Your task to perform on an android device: Open internet settings Image 0: 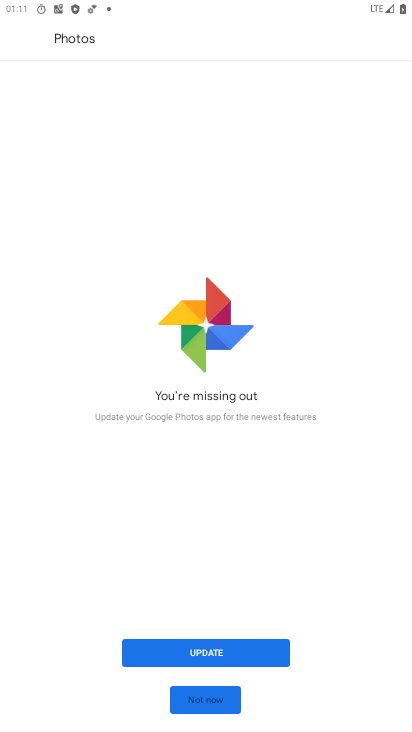
Step 0: press home button
Your task to perform on an android device: Open internet settings Image 1: 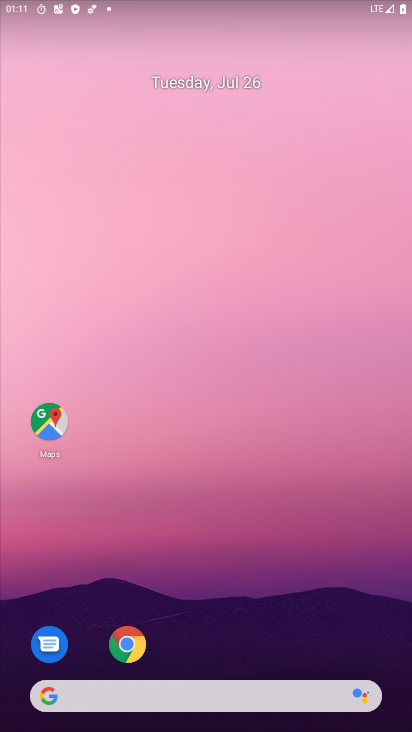
Step 1: drag from (208, 664) to (208, 62)
Your task to perform on an android device: Open internet settings Image 2: 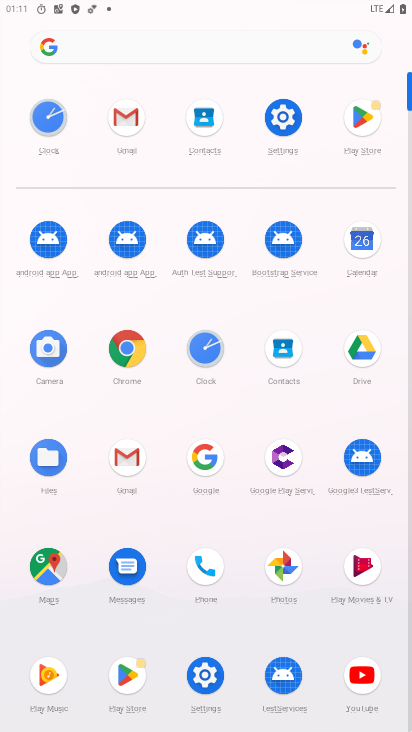
Step 2: click (283, 126)
Your task to perform on an android device: Open internet settings Image 3: 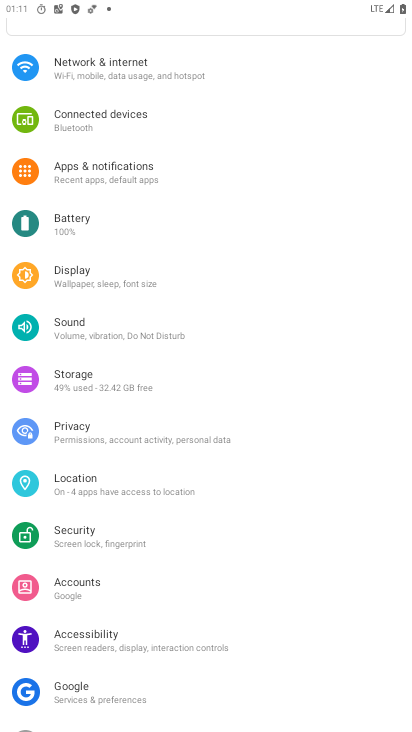
Step 3: click (87, 85)
Your task to perform on an android device: Open internet settings Image 4: 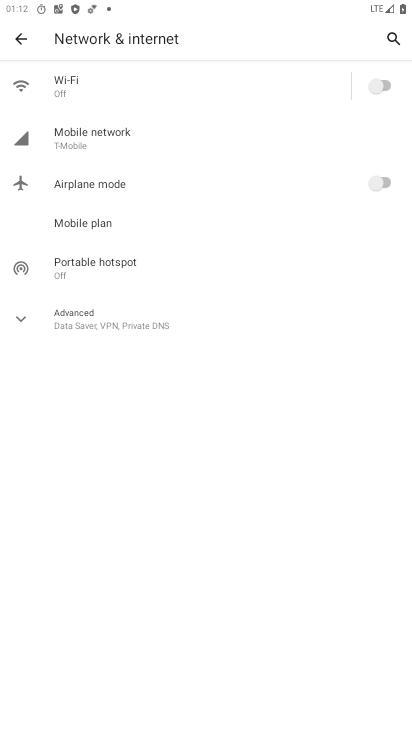
Step 4: click (20, 322)
Your task to perform on an android device: Open internet settings Image 5: 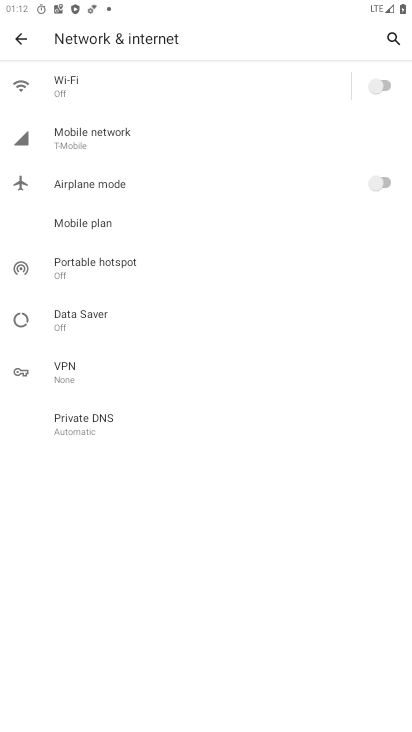
Step 5: task complete